Your task to perform on an android device: turn smart compose on in the gmail app Image 0: 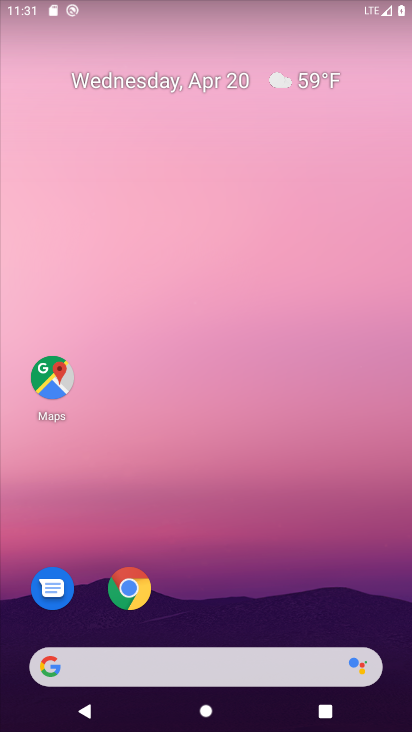
Step 0: drag from (246, 611) to (228, 41)
Your task to perform on an android device: turn smart compose on in the gmail app Image 1: 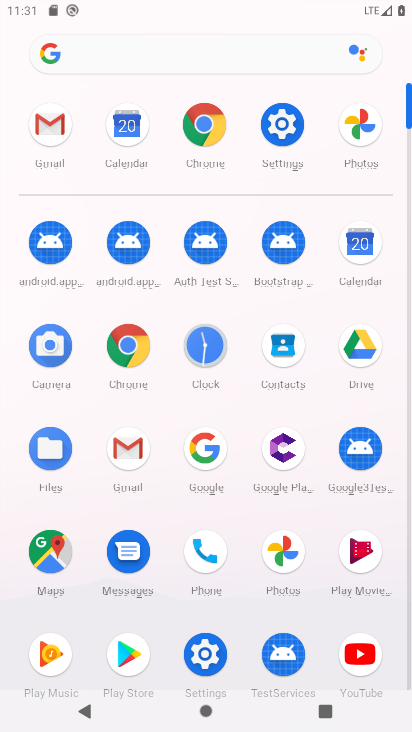
Step 1: click (42, 128)
Your task to perform on an android device: turn smart compose on in the gmail app Image 2: 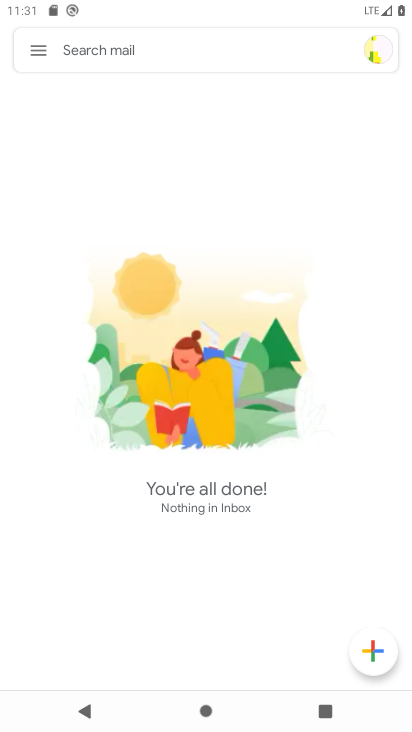
Step 2: click (41, 51)
Your task to perform on an android device: turn smart compose on in the gmail app Image 3: 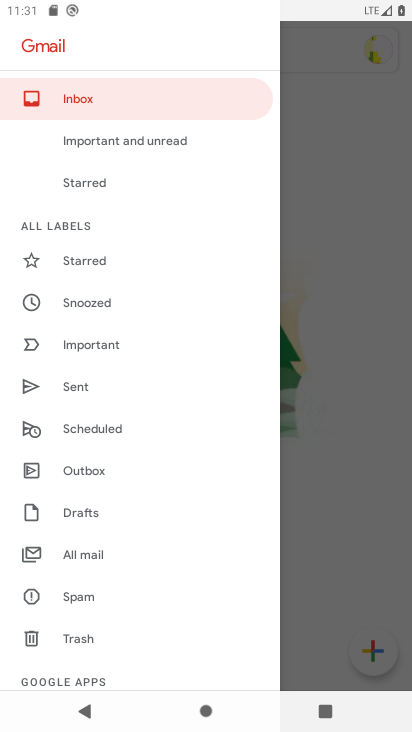
Step 3: drag from (125, 605) to (182, 10)
Your task to perform on an android device: turn smart compose on in the gmail app Image 4: 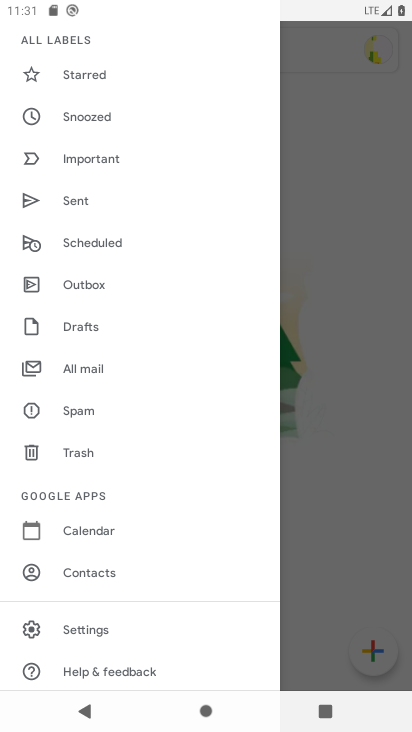
Step 4: click (91, 621)
Your task to perform on an android device: turn smart compose on in the gmail app Image 5: 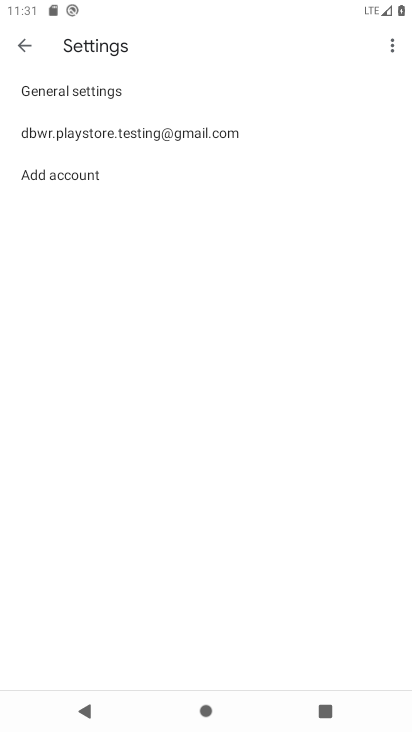
Step 5: click (101, 129)
Your task to perform on an android device: turn smart compose on in the gmail app Image 6: 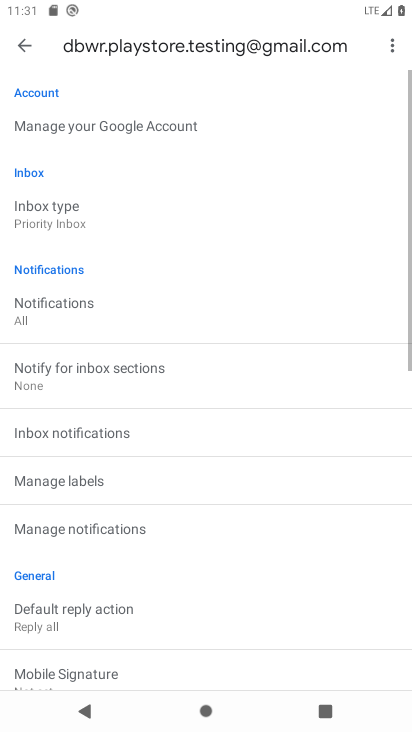
Step 6: task complete